Your task to perform on an android device: check google app version Image 0: 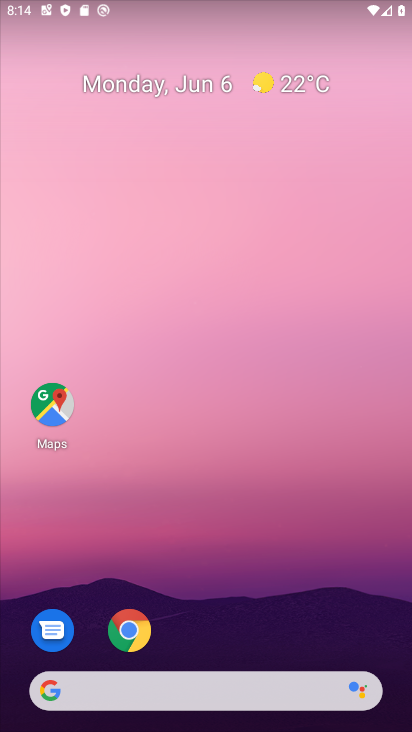
Step 0: drag from (108, 721) to (112, 91)
Your task to perform on an android device: check google app version Image 1: 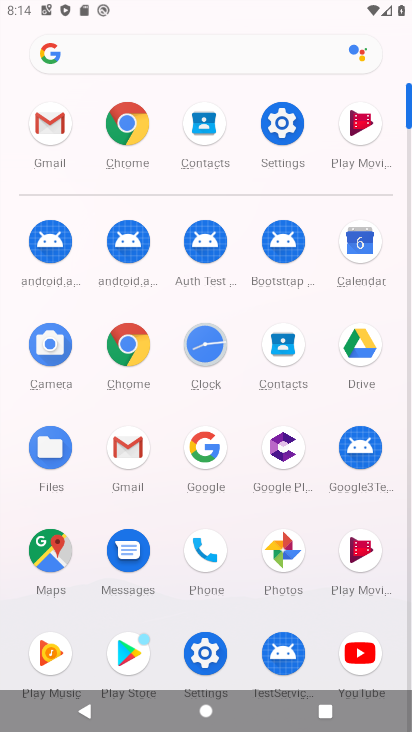
Step 1: click (203, 447)
Your task to perform on an android device: check google app version Image 2: 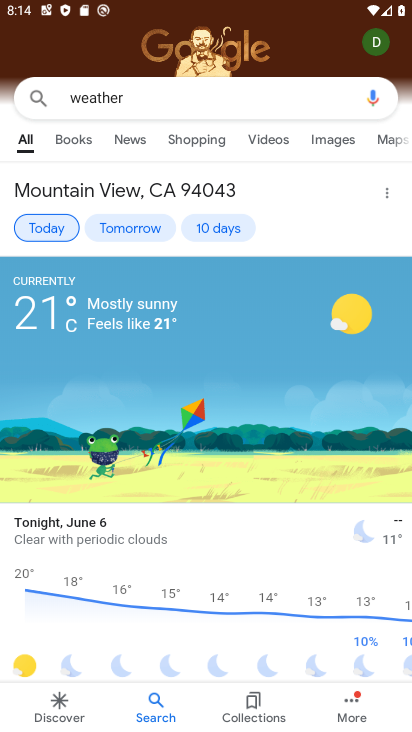
Step 2: click (337, 710)
Your task to perform on an android device: check google app version Image 3: 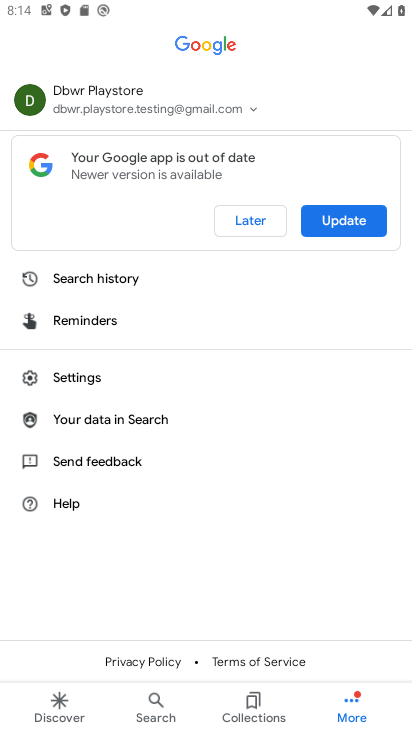
Step 3: click (104, 380)
Your task to perform on an android device: check google app version Image 4: 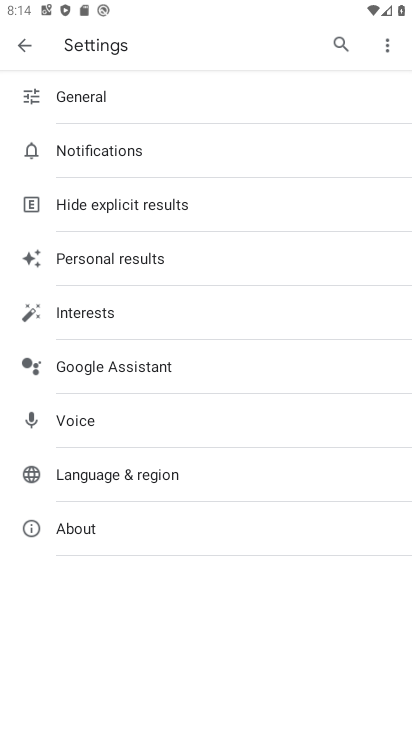
Step 4: click (185, 531)
Your task to perform on an android device: check google app version Image 5: 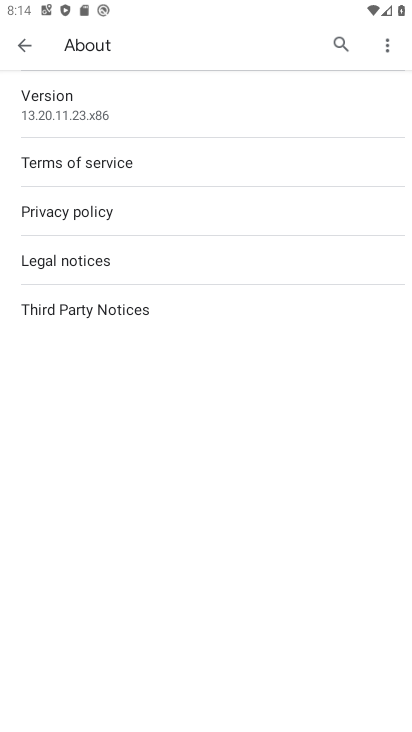
Step 5: click (95, 84)
Your task to perform on an android device: check google app version Image 6: 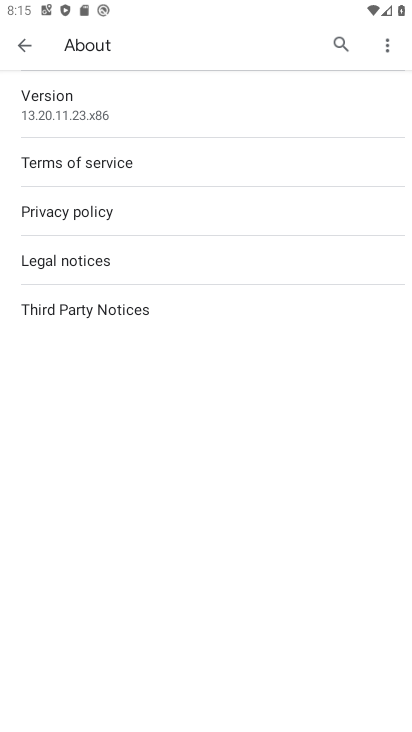
Step 6: task complete